Your task to perform on an android device: search for starred emails in the gmail app Image 0: 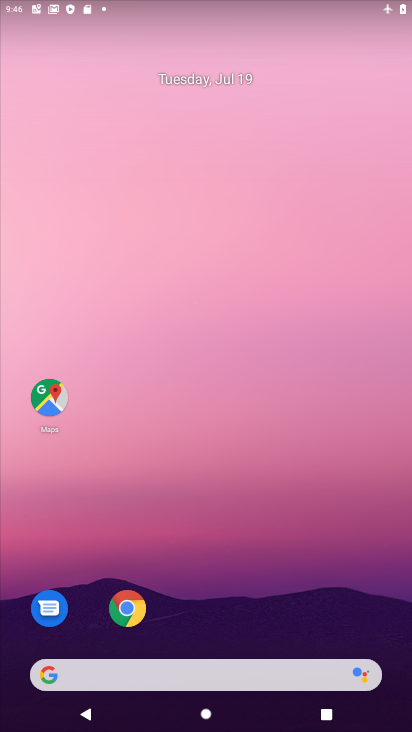
Step 0: drag from (287, 593) to (258, 61)
Your task to perform on an android device: search for starred emails in the gmail app Image 1: 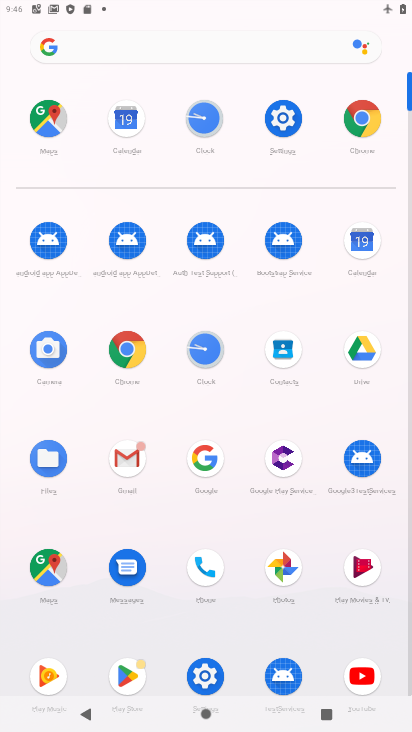
Step 1: click (138, 450)
Your task to perform on an android device: search for starred emails in the gmail app Image 2: 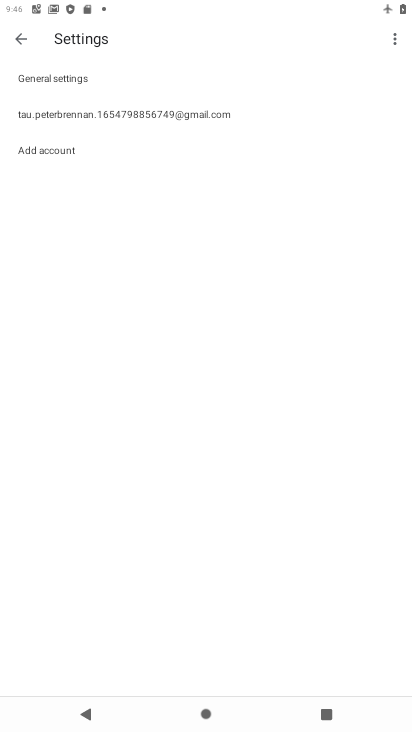
Step 2: click (16, 29)
Your task to perform on an android device: search for starred emails in the gmail app Image 3: 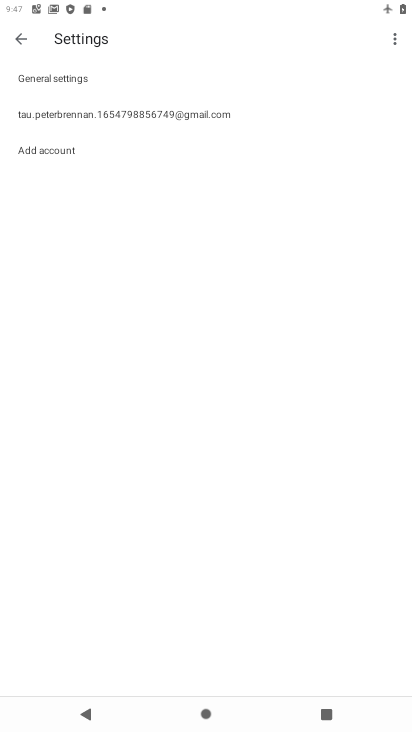
Step 3: click (16, 29)
Your task to perform on an android device: search for starred emails in the gmail app Image 4: 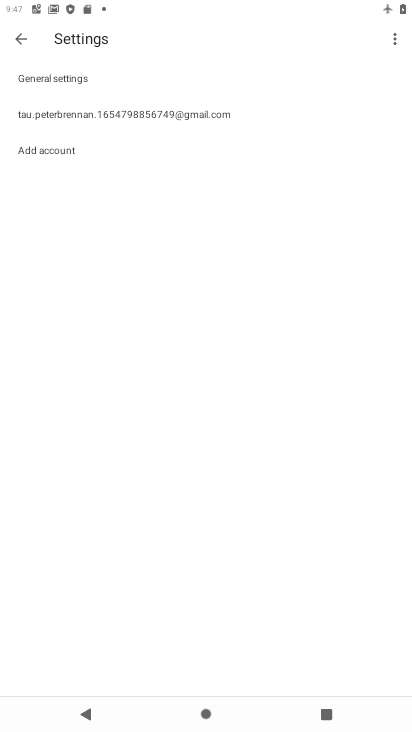
Step 4: click (24, 39)
Your task to perform on an android device: search for starred emails in the gmail app Image 5: 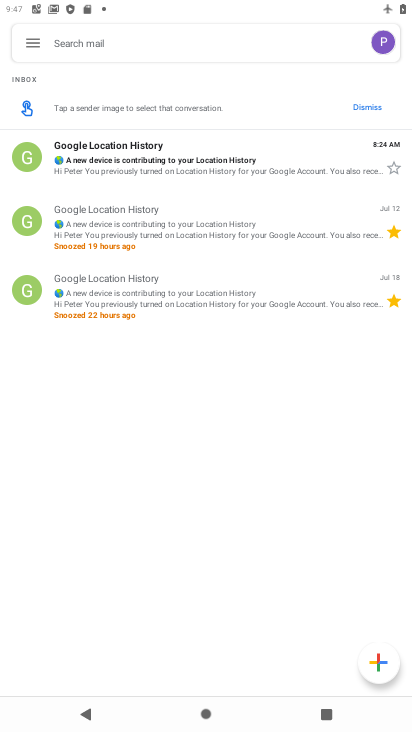
Step 5: click (24, 39)
Your task to perform on an android device: search for starred emails in the gmail app Image 6: 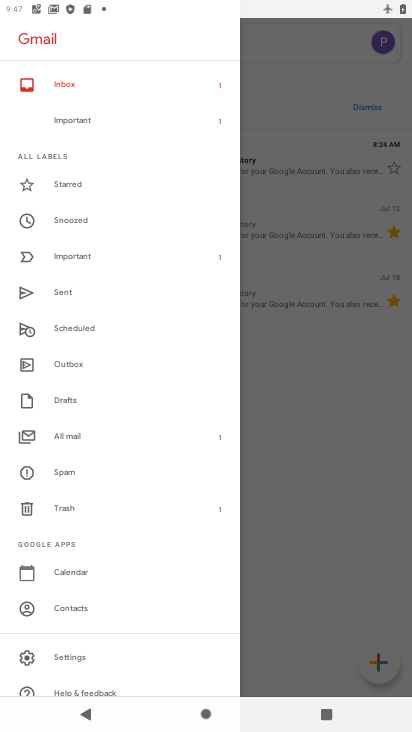
Step 6: click (74, 191)
Your task to perform on an android device: search for starred emails in the gmail app Image 7: 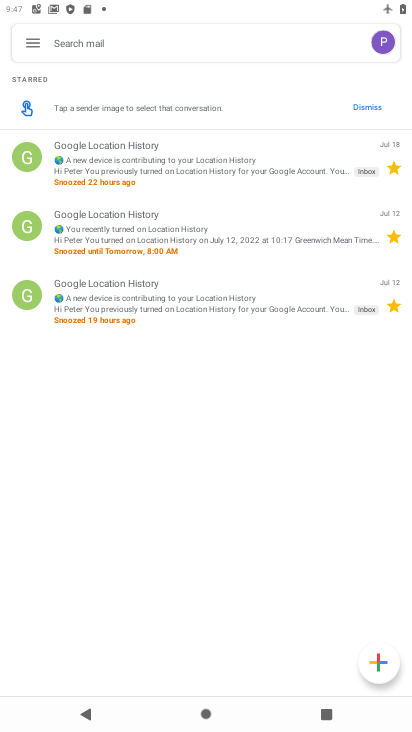
Step 7: click (31, 43)
Your task to perform on an android device: search for starred emails in the gmail app Image 8: 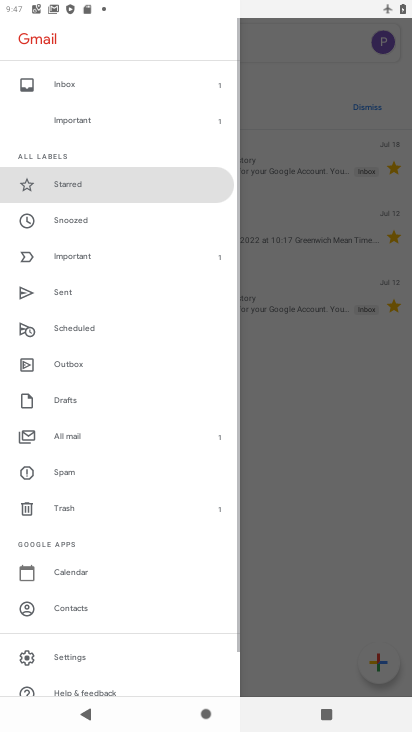
Step 8: click (68, 173)
Your task to perform on an android device: search for starred emails in the gmail app Image 9: 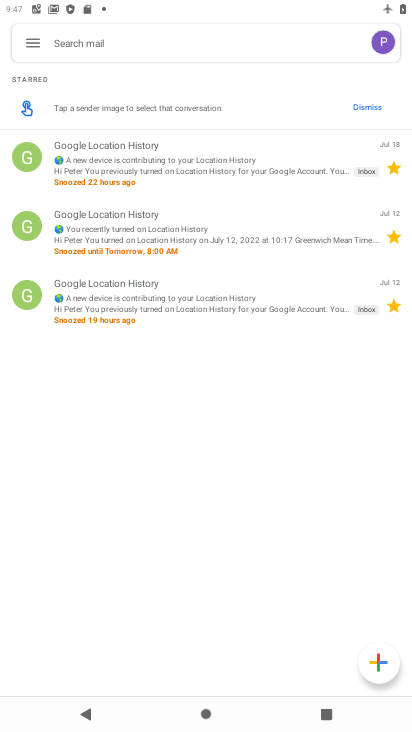
Step 9: task complete